Your task to perform on an android device: Open wifi settings Image 0: 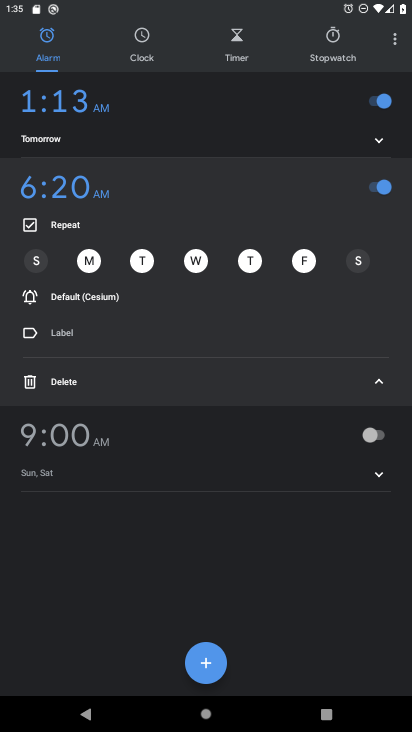
Step 0: press home button
Your task to perform on an android device: Open wifi settings Image 1: 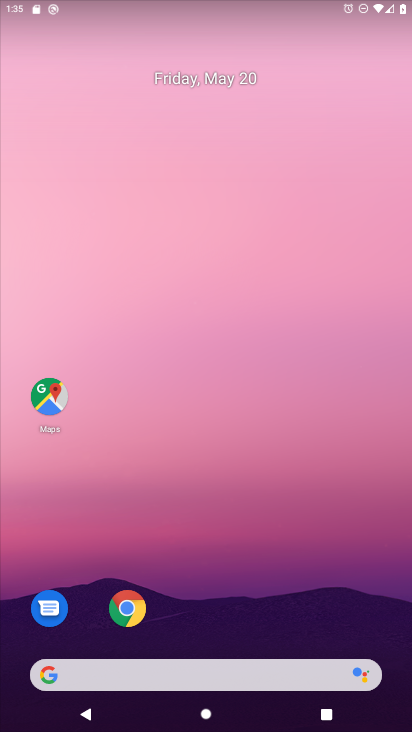
Step 1: drag from (235, 8) to (227, 651)
Your task to perform on an android device: Open wifi settings Image 2: 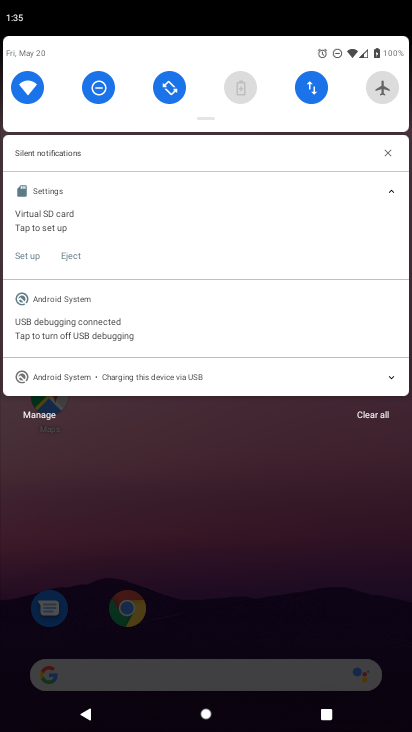
Step 2: click (31, 86)
Your task to perform on an android device: Open wifi settings Image 3: 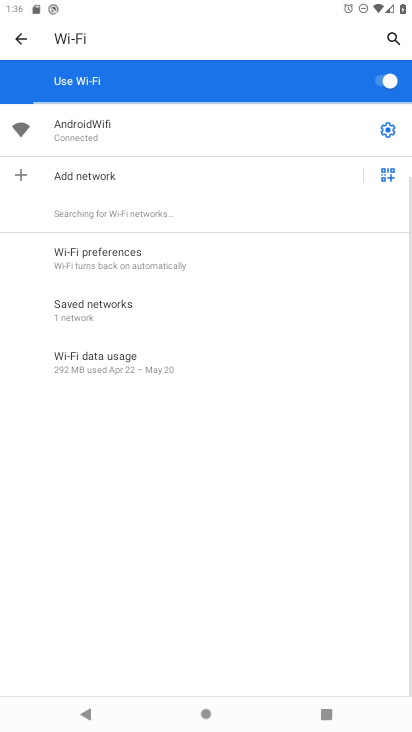
Step 3: task complete